Your task to perform on an android device: Find coffee shops on Maps Image 0: 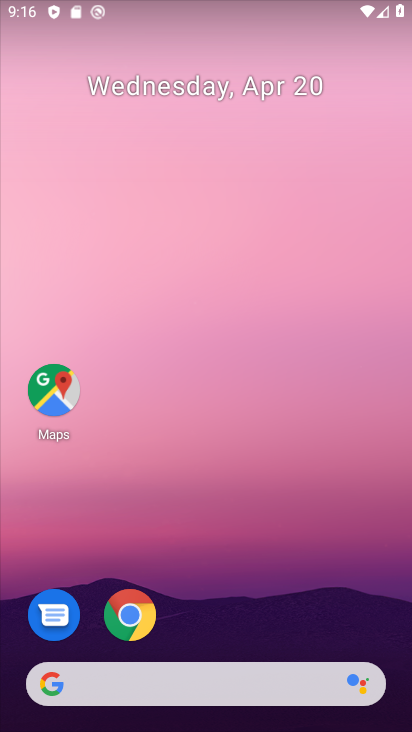
Step 0: click (45, 389)
Your task to perform on an android device: Find coffee shops on Maps Image 1: 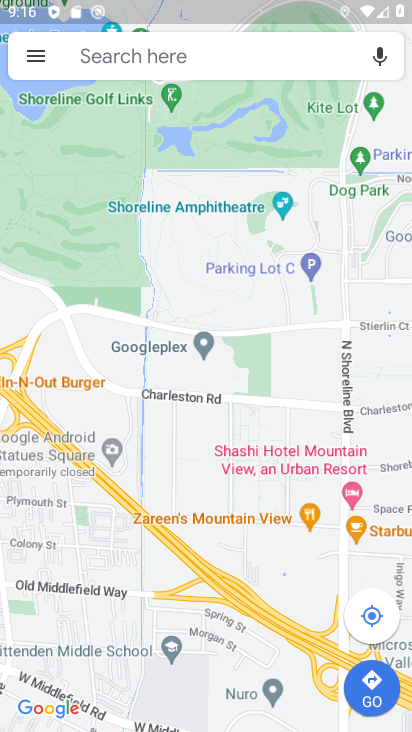
Step 1: click (184, 60)
Your task to perform on an android device: Find coffee shops on Maps Image 2: 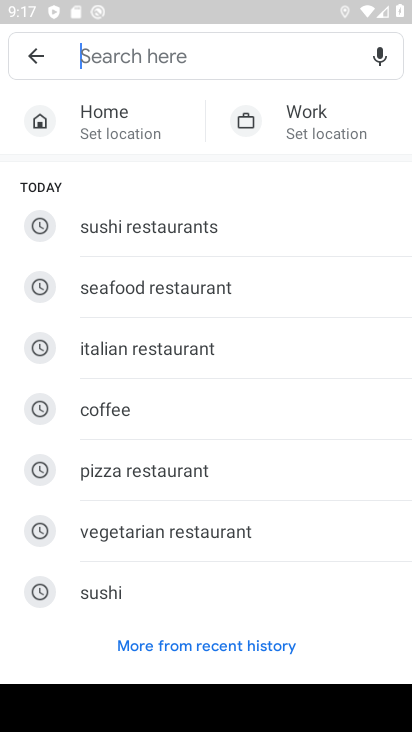
Step 2: type "coffee shops "
Your task to perform on an android device: Find coffee shops on Maps Image 3: 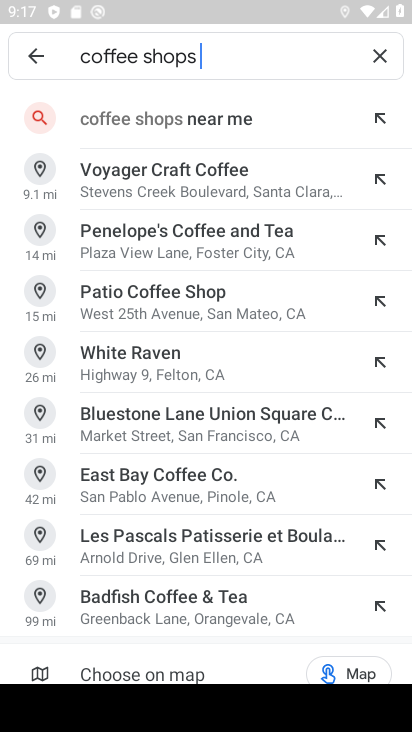
Step 3: click (180, 113)
Your task to perform on an android device: Find coffee shops on Maps Image 4: 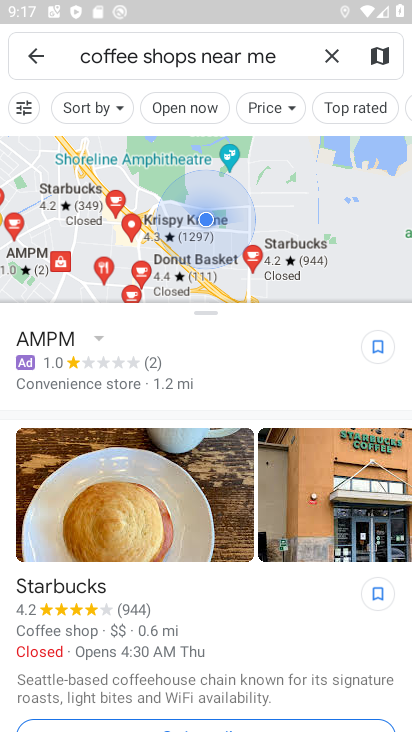
Step 4: task complete